Your task to perform on an android device: set the stopwatch Image 0: 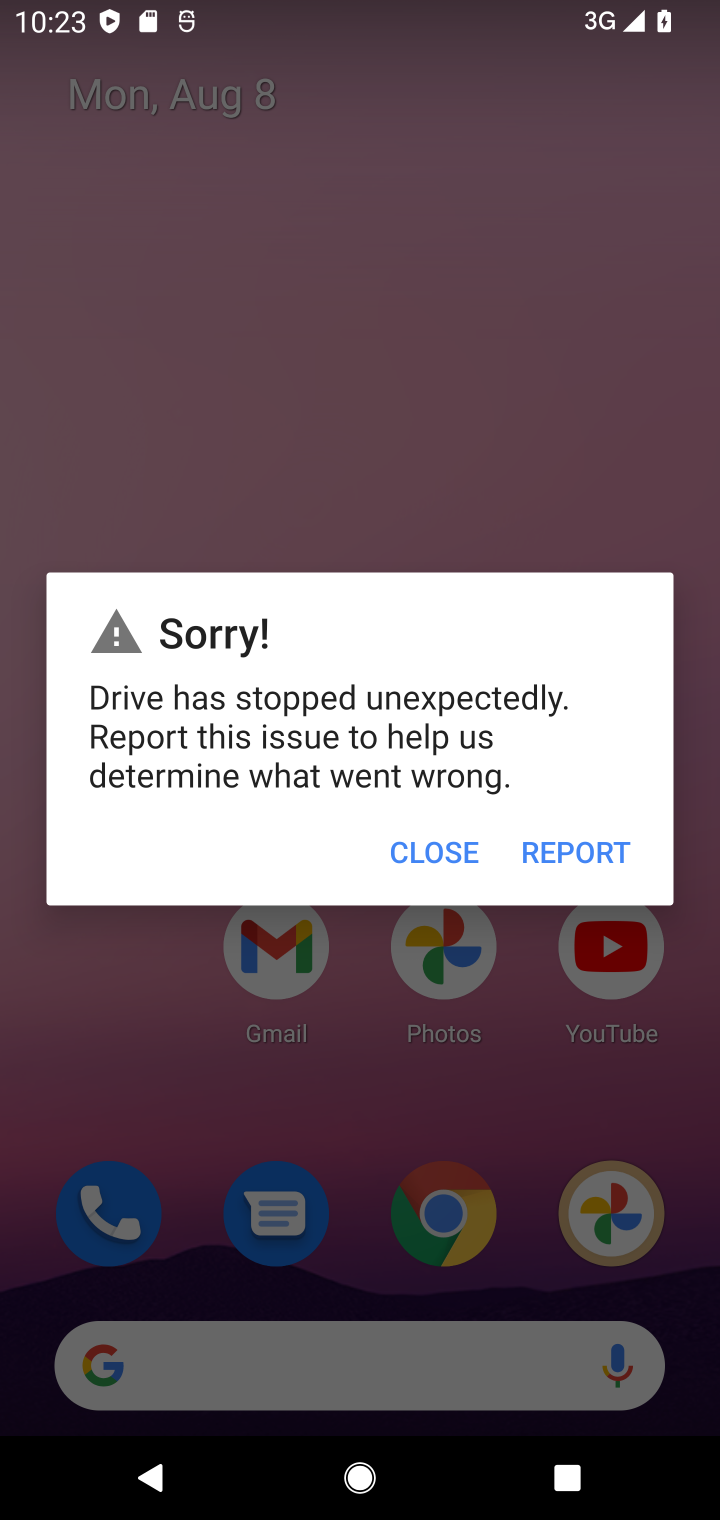
Step 0: press home button
Your task to perform on an android device: set the stopwatch Image 1: 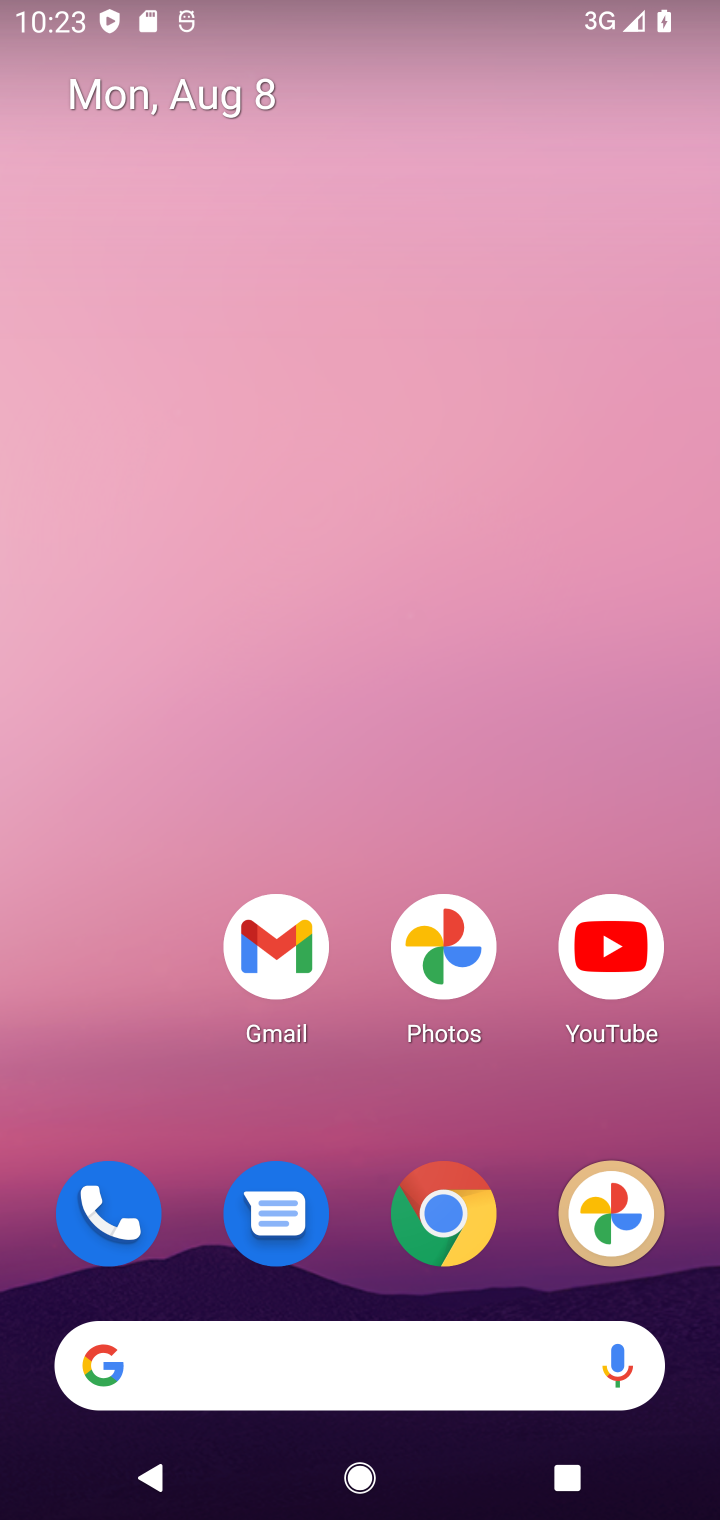
Step 1: drag from (274, 760) to (562, 55)
Your task to perform on an android device: set the stopwatch Image 2: 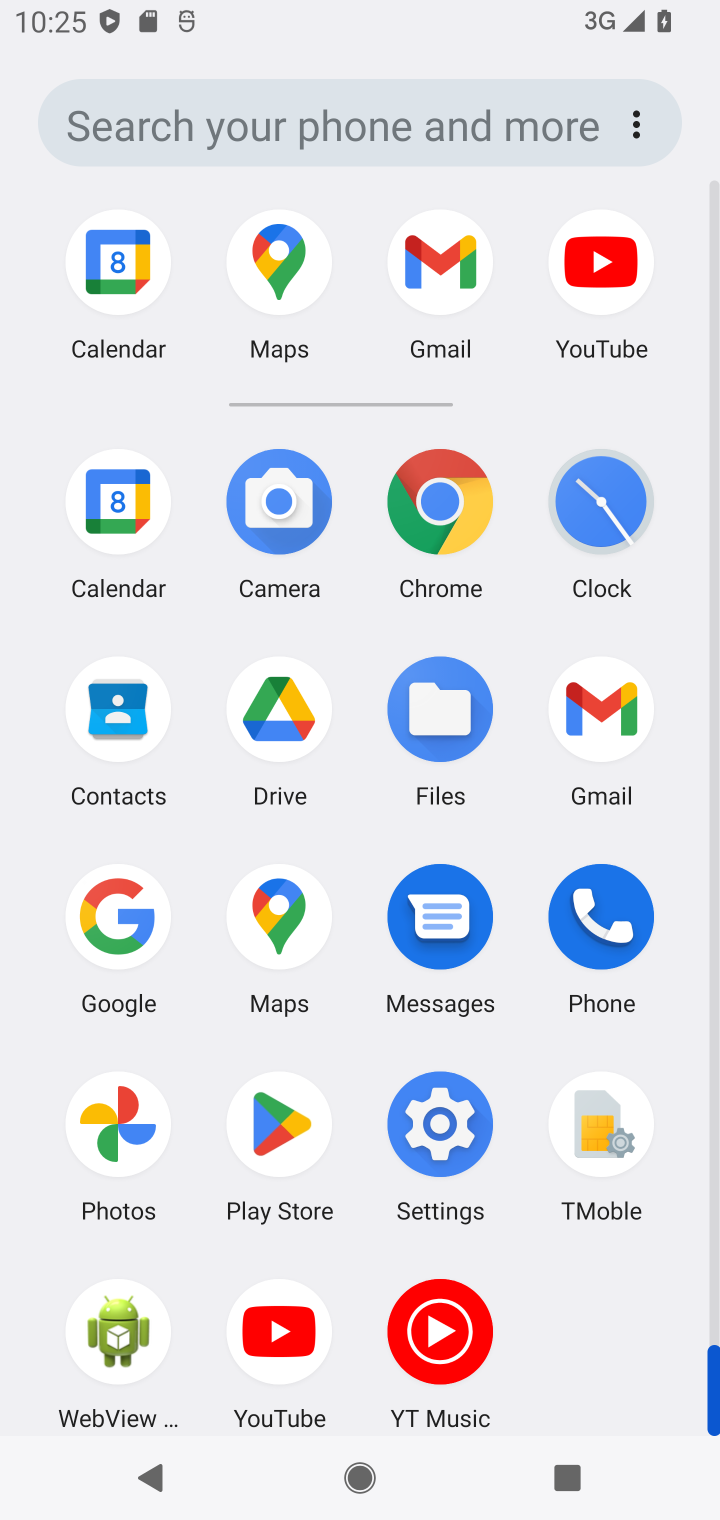
Step 2: click (631, 545)
Your task to perform on an android device: set the stopwatch Image 3: 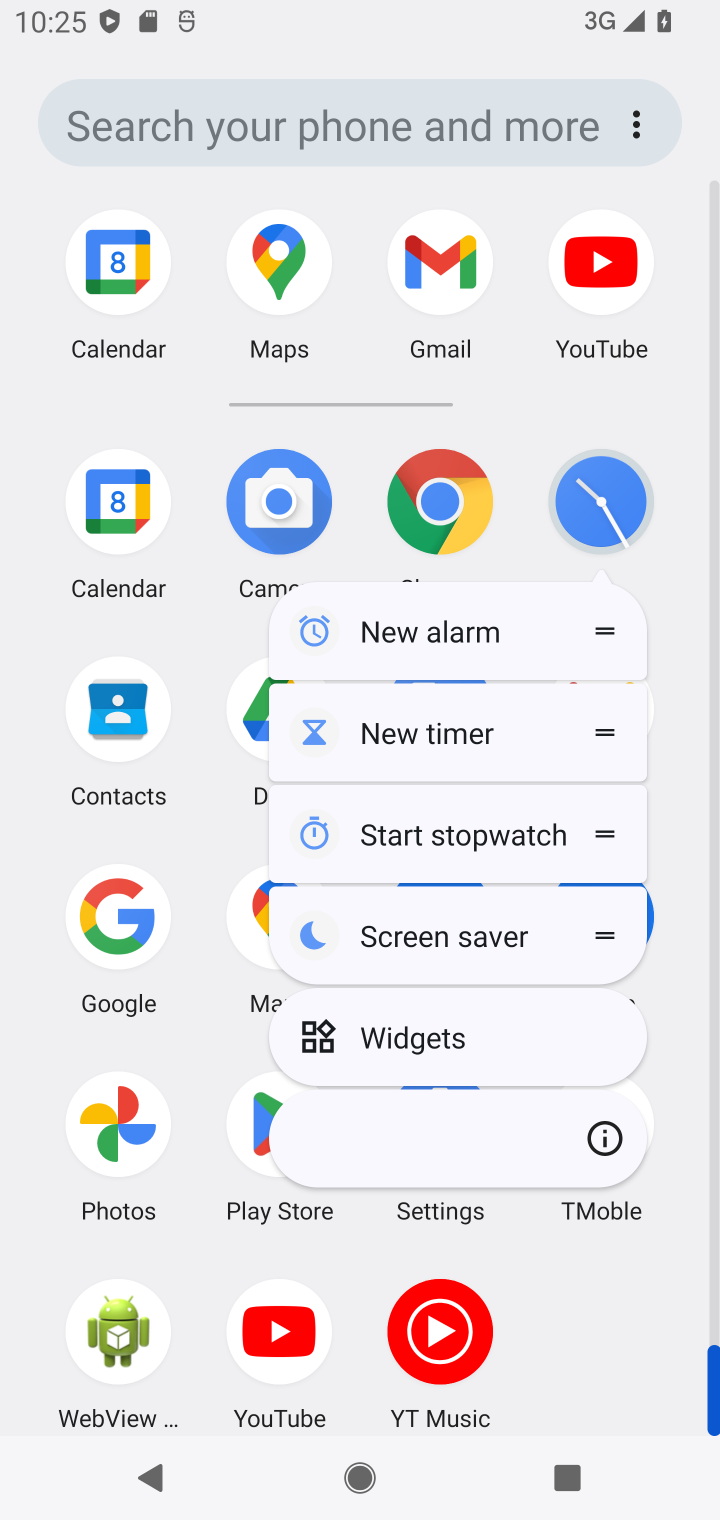
Step 3: click (615, 510)
Your task to perform on an android device: set the stopwatch Image 4: 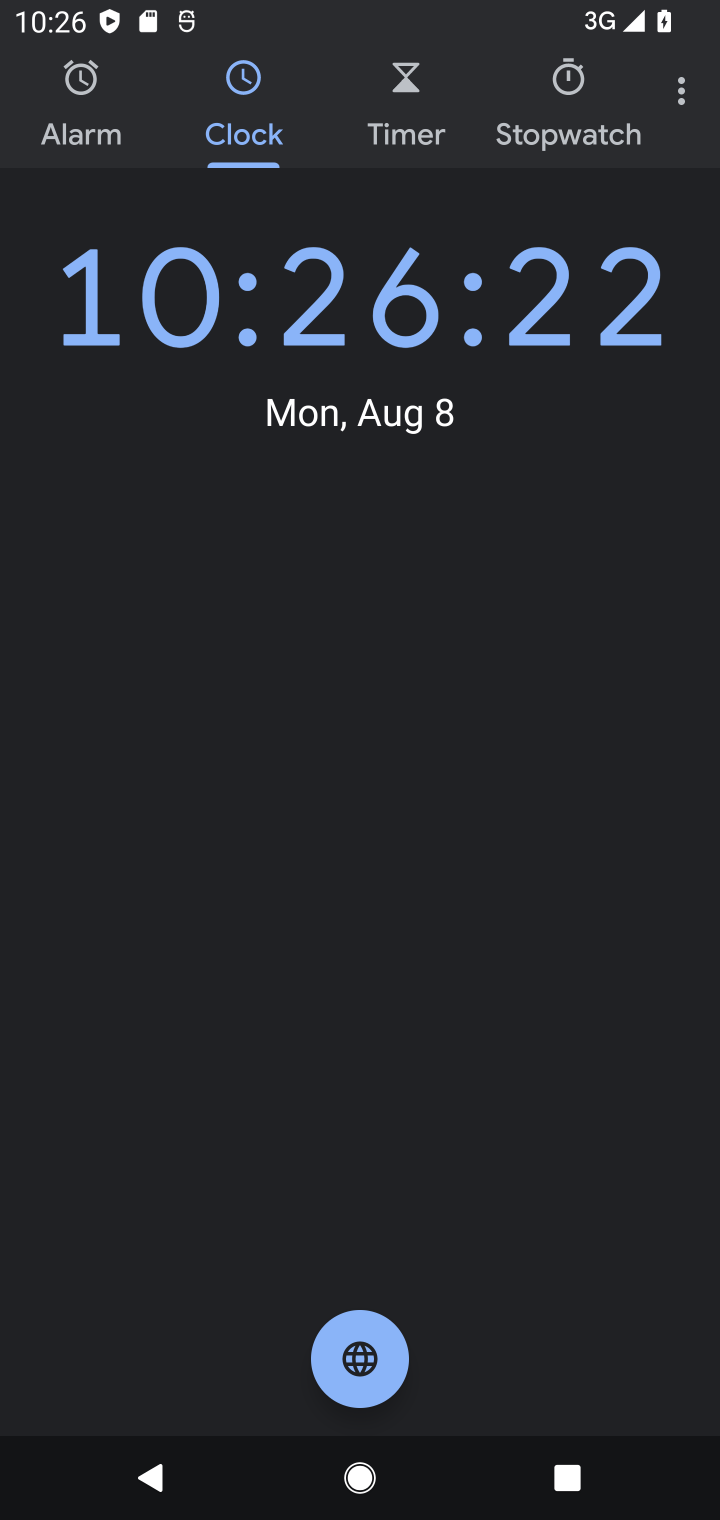
Step 4: click (555, 117)
Your task to perform on an android device: set the stopwatch Image 5: 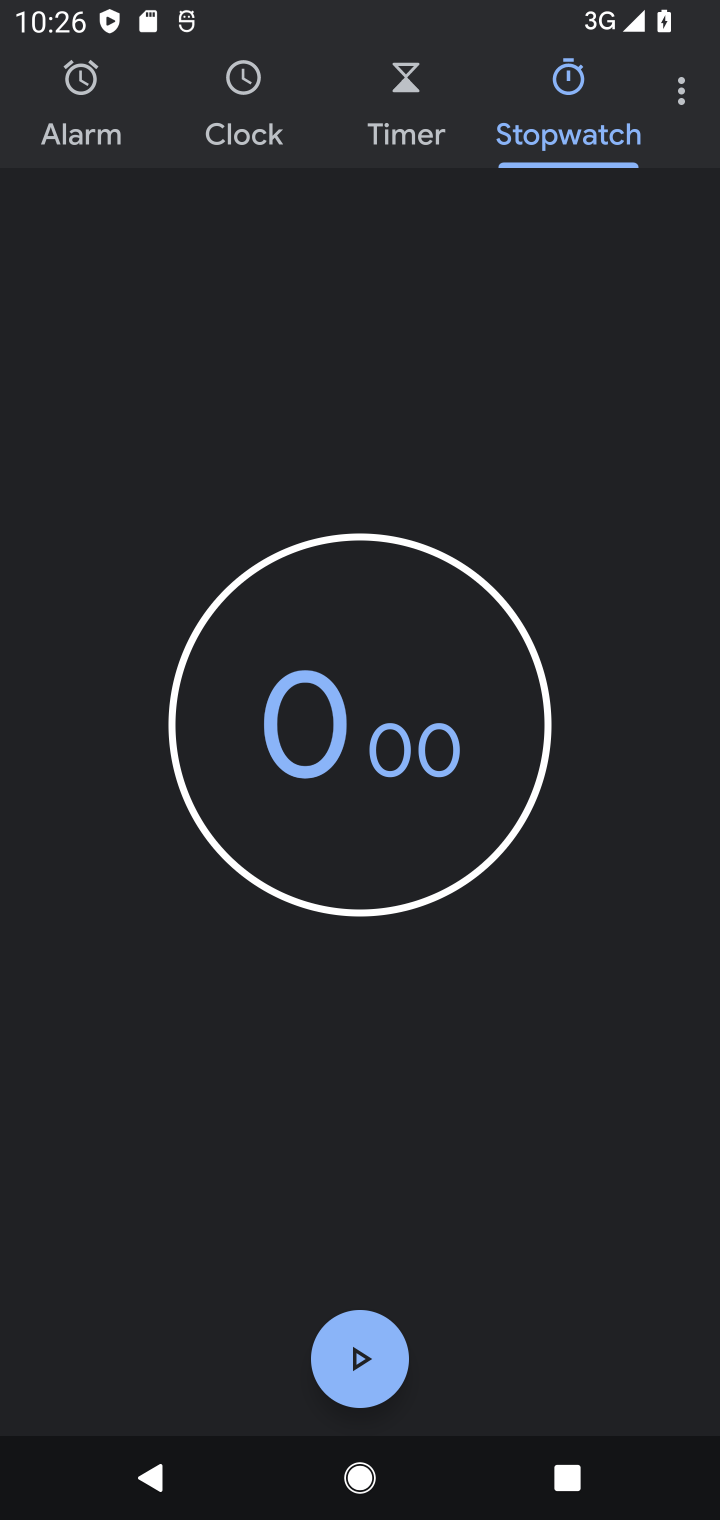
Step 5: click (382, 1364)
Your task to perform on an android device: set the stopwatch Image 6: 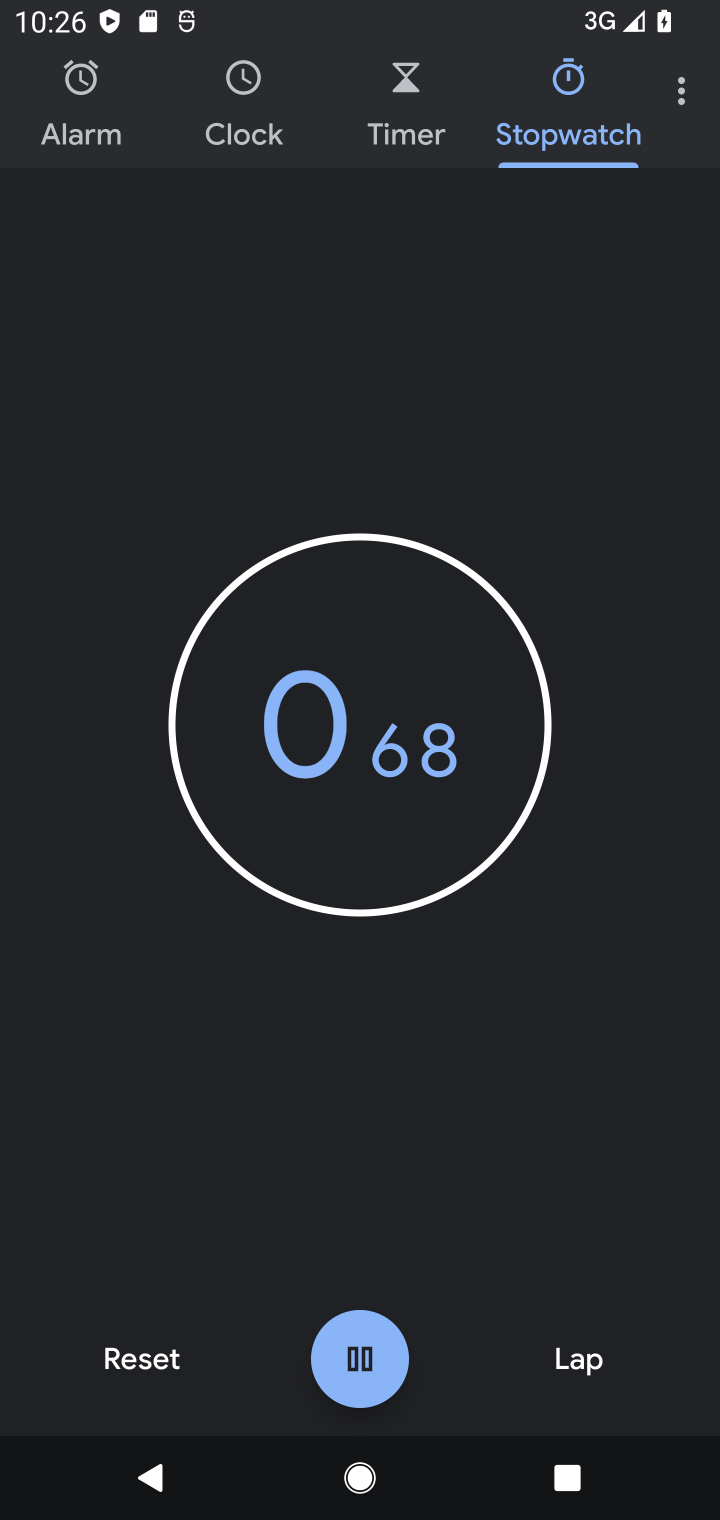
Step 6: task complete